Your task to perform on an android device: What's the weather going to be tomorrow? Image 0: 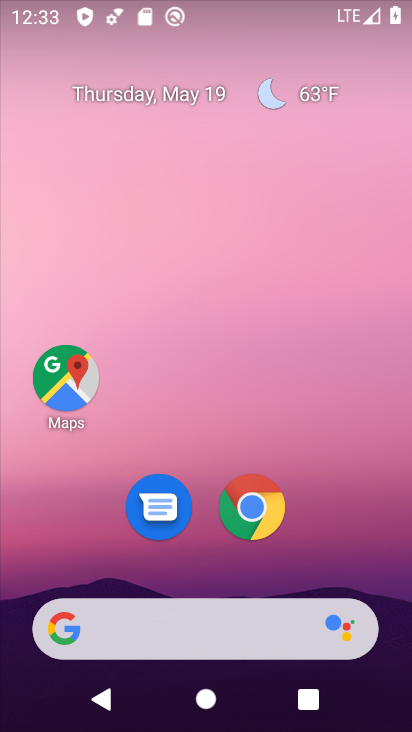
Step 0: click (182, 224)
Your task to perform on an android device: What's the weather going to be tomorrow? Image 1: 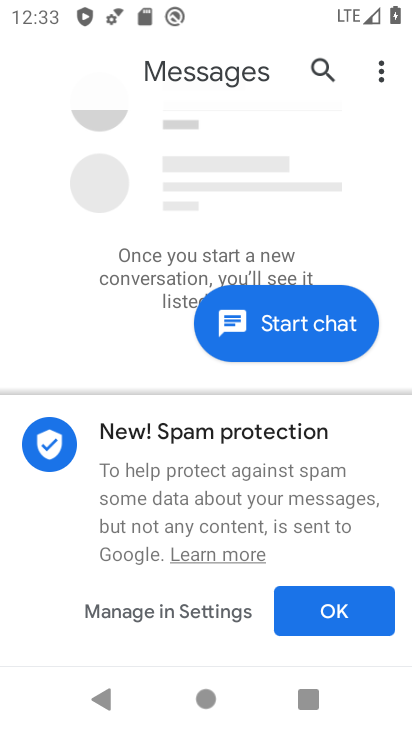
Step 1: press home button
Your task to perform on an android device: What's the weather going to be tomorrow? Image 2: 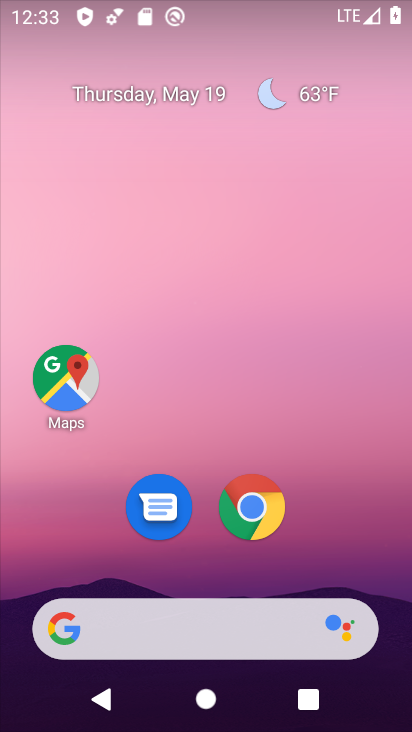
Step 2: drag from (214, 595) to (198, 258)
Your task to perform on an android device: What's the weather going to be tomorrow? Image 3: 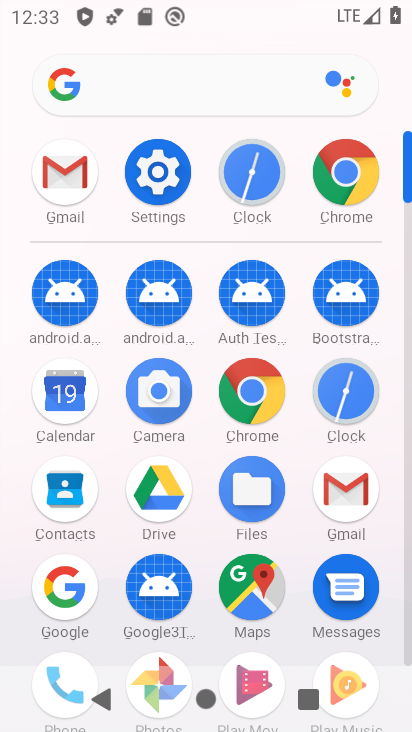
Step 3: click (59, 599)
Your task to perform on an android device: What's the weather going to be tomorrow? Image 4: 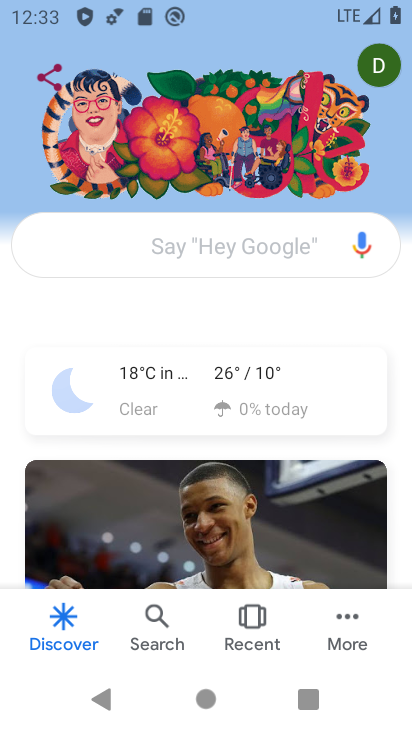
Step 4: click (178, 236)
Your task to perform on an android device: What's the weather going to be tomorrow? Image 5: 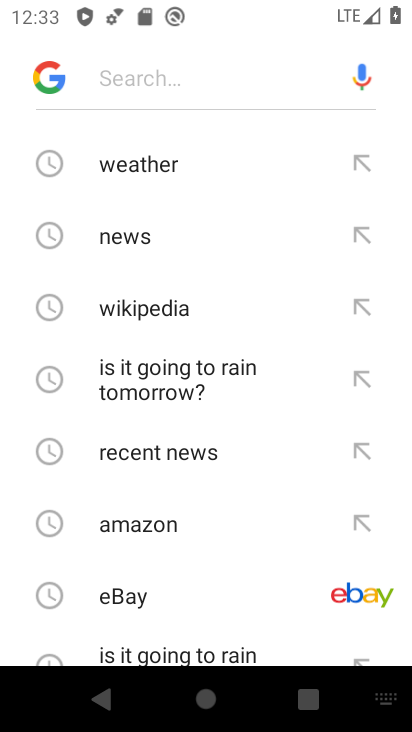
Step 5: drag from (174, 598) to (166, 294)
Your task to perform on an android device: What's the weather going to be tomorrow? Image 6: 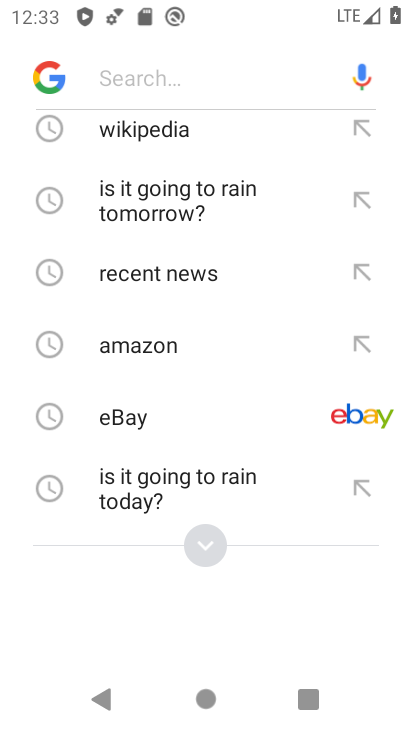
Step 6: click (200, 547)
Your task to perform on an android device: What's the weather going to be tomorrow? Image 7: 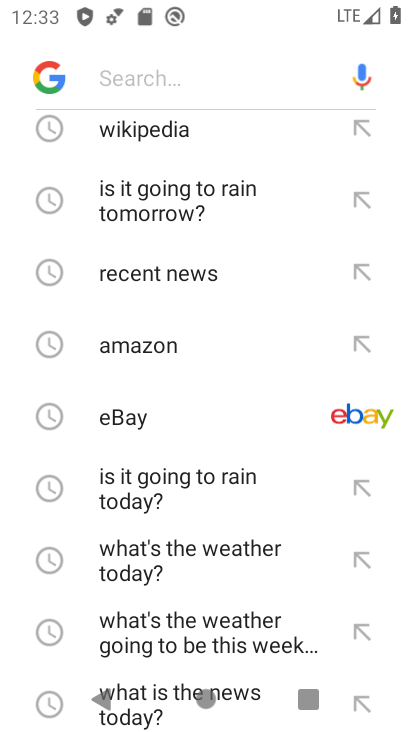
Step 7: drag from (212, 628) to (212, 447)
Your task to perform on an android device: What's the weather going to be tomorrow? Image 8: 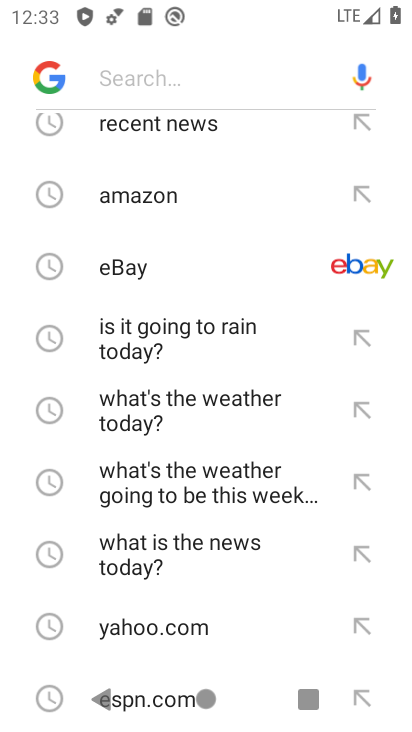
Step 8: drag from (203, 652) to (203, 336)
Your task to perform on an android device: What's the weather going to be tomorrow? Image 9: 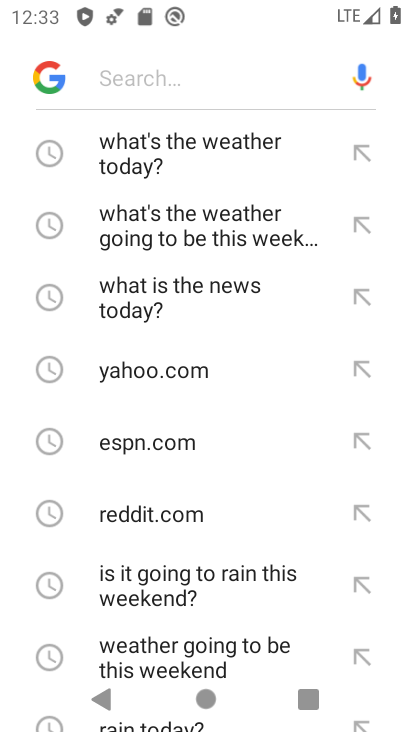
Step 9: drag from (210, 661) to (211, 334)
Your task to perform on an android device: What's the weather going to be tomorrow? Image 10: 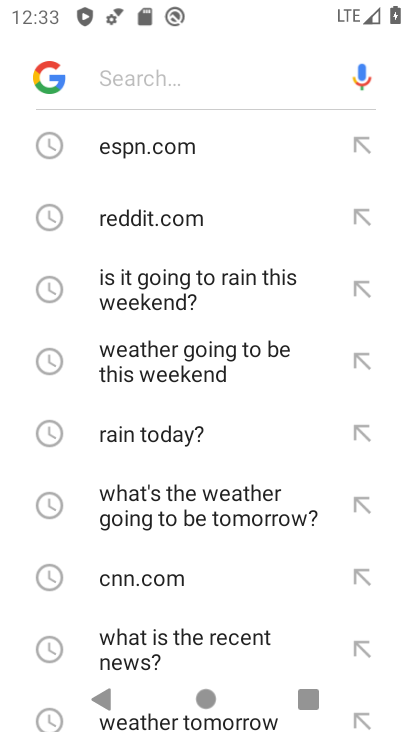
Step 10: drag from (217, 647) to (226, 348)
Your task to perform on an android device: What's the weather going to be tomorrow? Image 11: 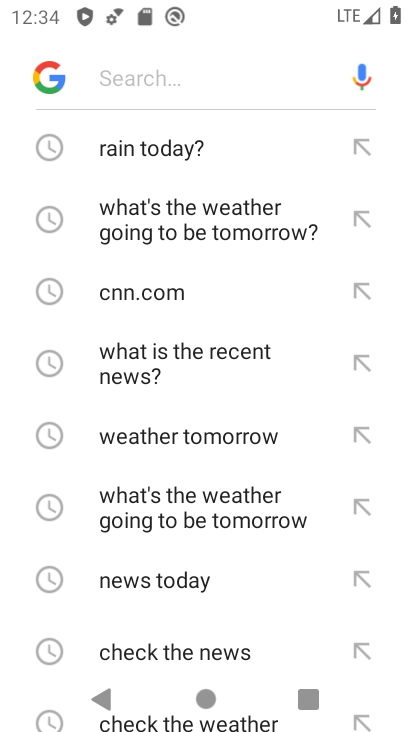
Step 11: click (193, 512)
Your task to perform on an android device: What's the weather going to be tomorrow? Image 12: 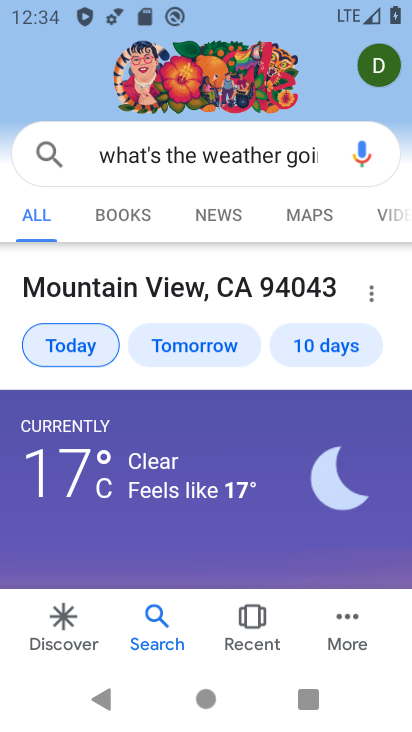
Step 12: drag from (195, 542) to (199, 307)
Your task to perform on an android device: What's the weather going to be tomorrow? Image 13: 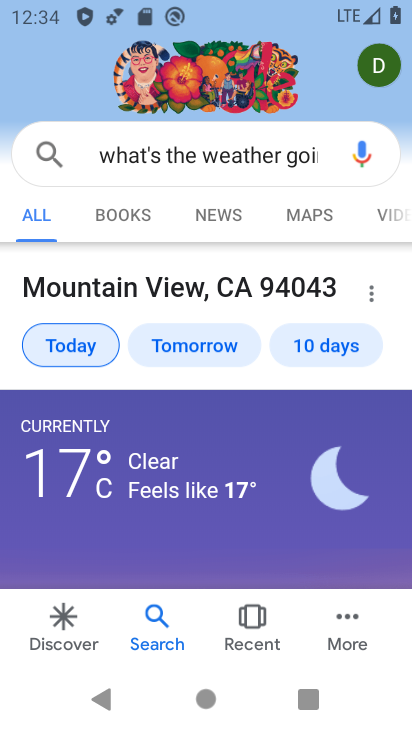
Step 13: click (219, 345)
Your task to perform on an android device: What's the weather going to be tomorrow? Image 14: 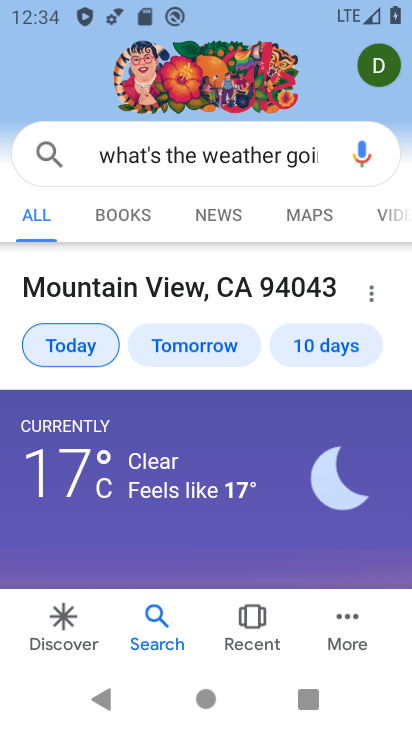
Step 14: drag from (203, 546) to (205, 252)
Your task to perform on an android device: What's the weather going to be tomorrow? Image 15: 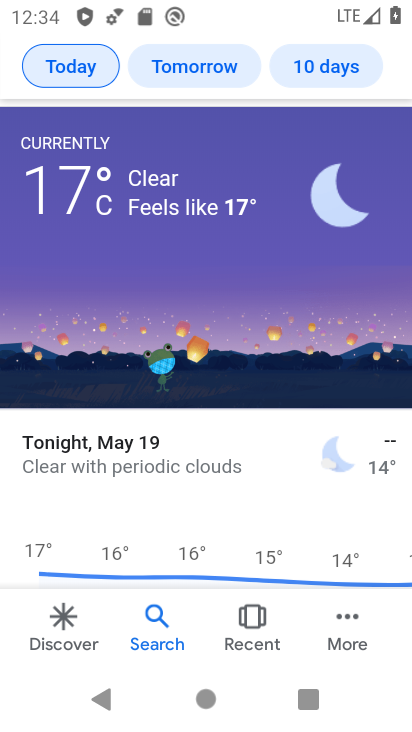
Step 15: drag from (172, 534) to (172, 197)
Your task to perform on an android device: What's the weather going to be tomorrow? Image 16: 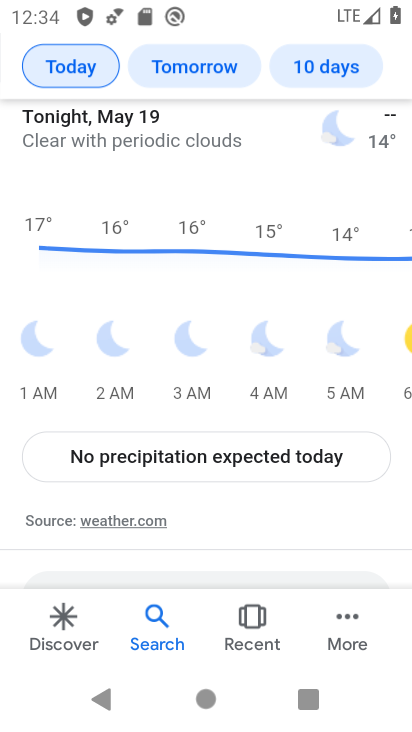
Step 16: click (170, 467)
Your task to perform on an android device: What's the weather going to be tomorrow? Image 17: 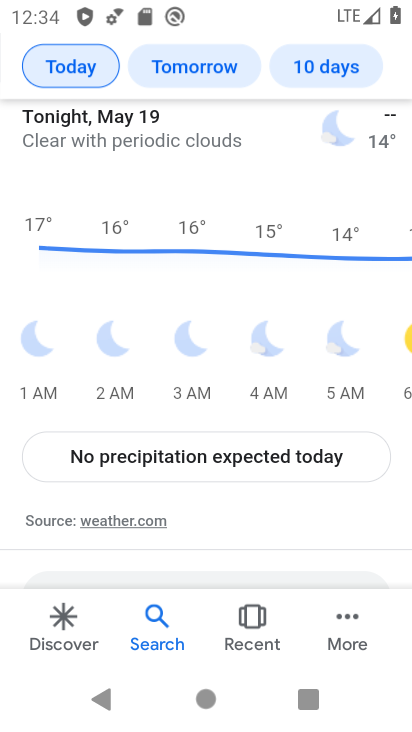
Step 17: click (169, 466)
Your task to perform on an android device: What's the weather going to be tomorrow? Image 18: 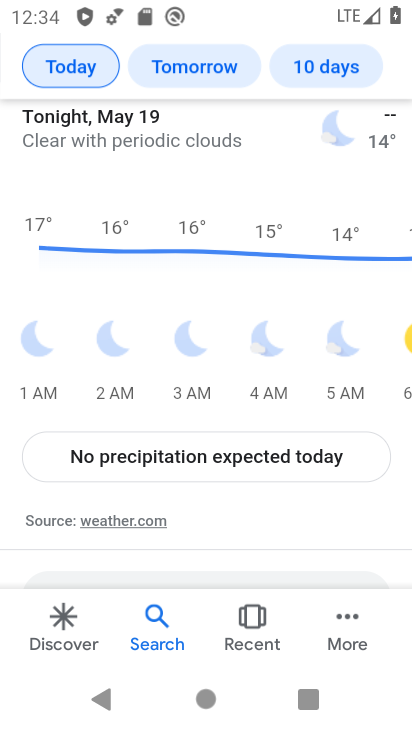
Step 18: click (225, 63)
Your task to perform on an android device: What's the weather going to be tomorrow? Image 19: 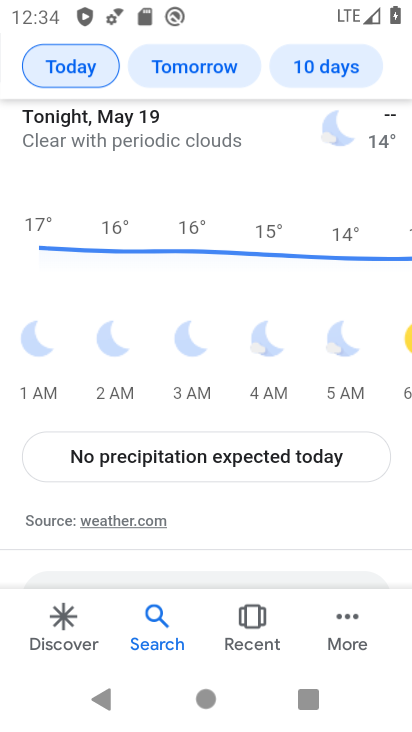
Step 19: click (225, 62)
Your task to perform on an android device: What's the weather going to be tomorrow? Image 20: 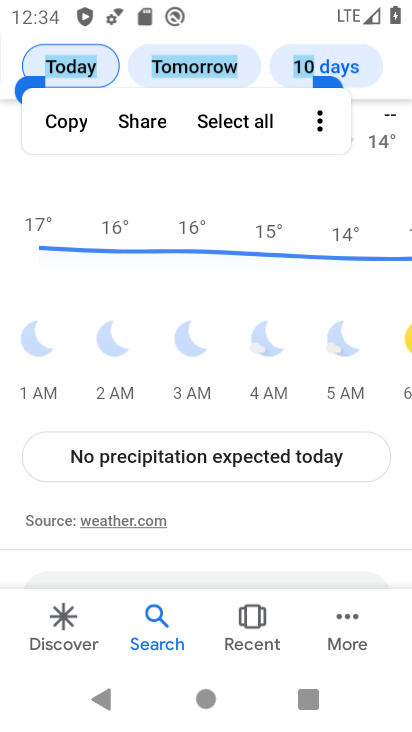
Step 20: click (176, 178)
Your task to perform on an android device: What's the weather going to be tomorrow? Image 21: 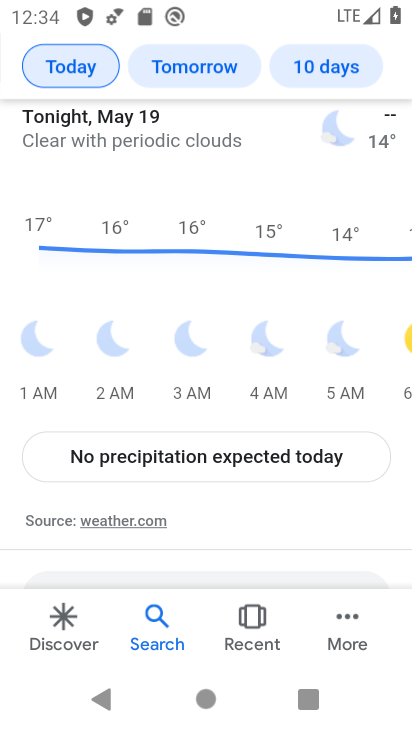
Step 21: task complete